Your task to perform on an android device: turn on wifi Image 0: 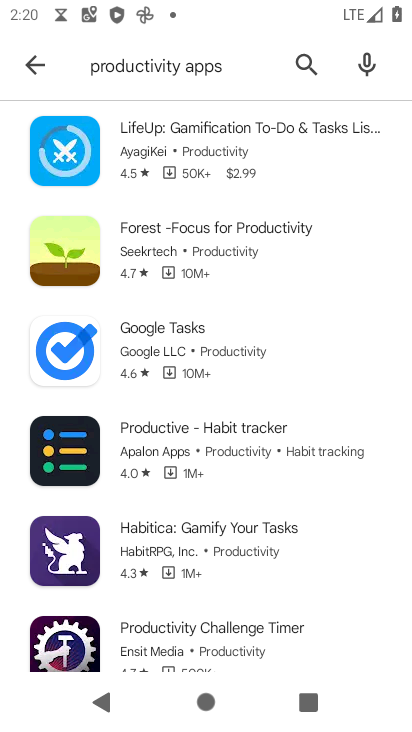
Step 0: press home button
Your task to perform on an android device: turn on wifi Image 1: 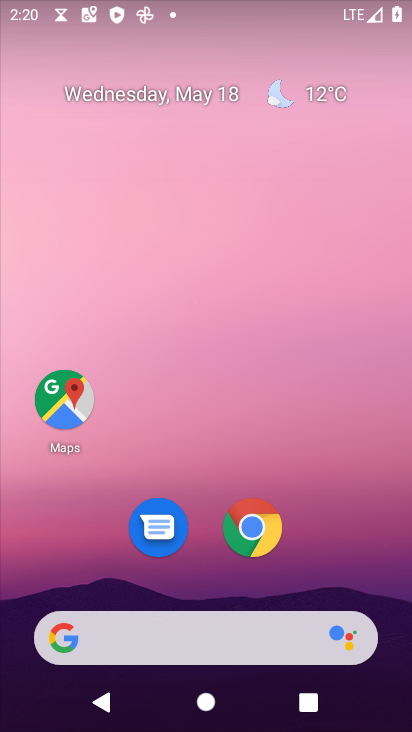
Step 1: drag from (303, 394) to (207, 43)
Your task to perform on an android device: turn on wifi Image 2: 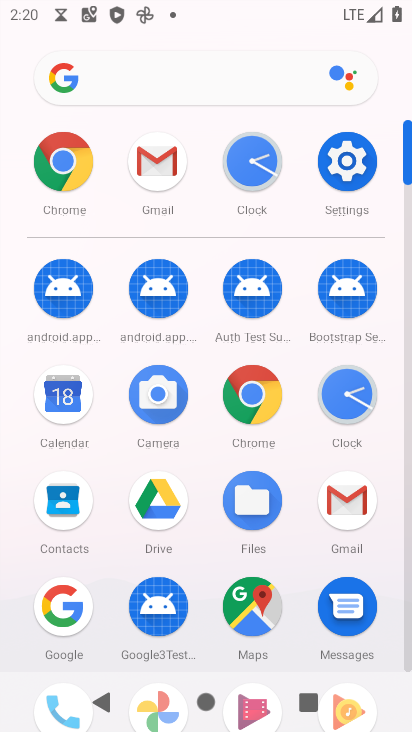
Step 2: click (356, 168)
Your task to perform on an android device: turn on wifi Image 3: 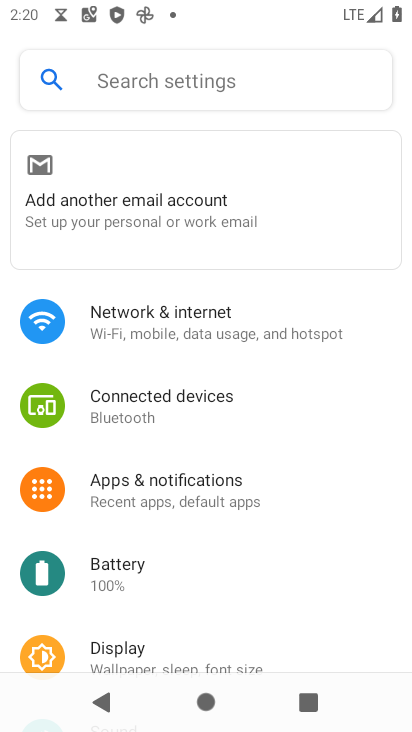
Step 3: click (209, 312)
Your task to perform on an android device: turn on wifi Image 4: 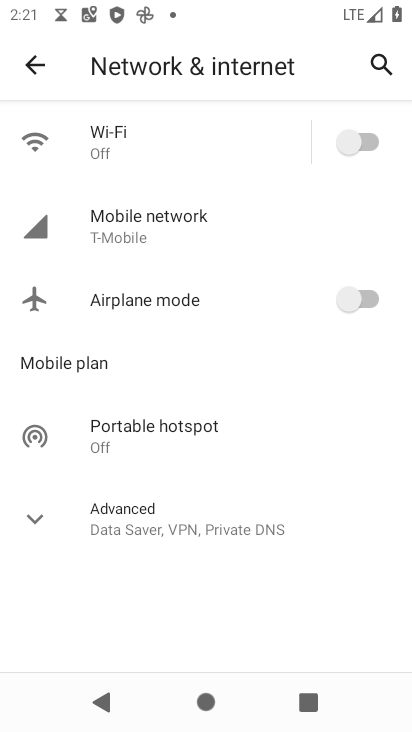
Step 4: click (373, 140)
Your task to perform on an android device: turn on wifi Image 5: 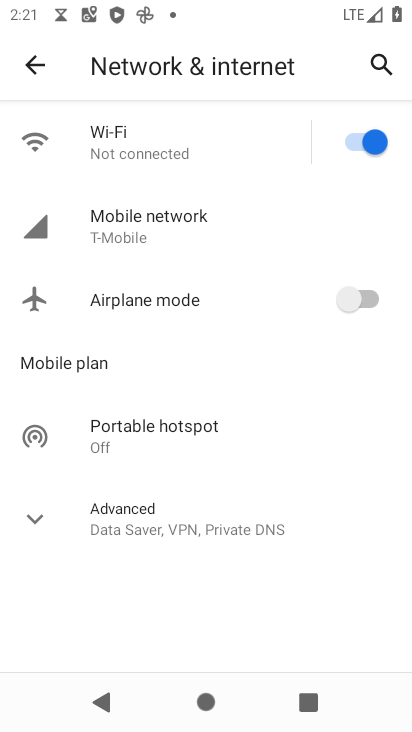
Step 5: task complete